Your task to perform on an android device: check battery use Image 0: 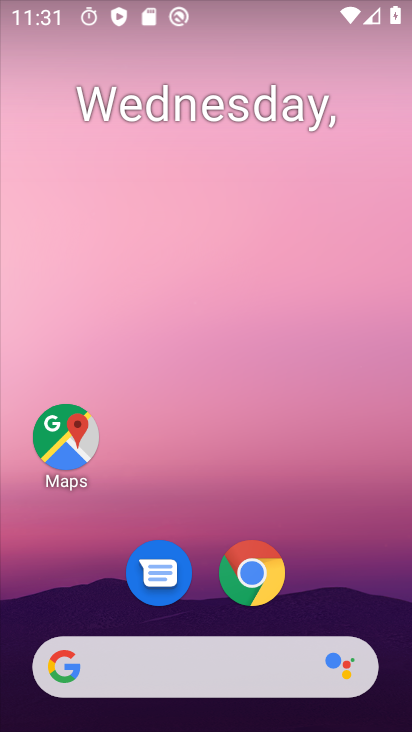
Step 0: drag from (373, 594) to (352, 277)
Your task to perform on an android device: check battery use Image 1: 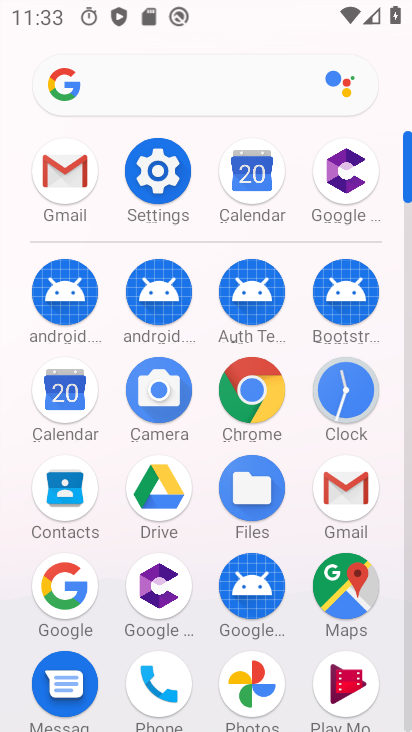
Step 1: click (158, 167)
Your task to perform on an android device: check battery use Image 2: 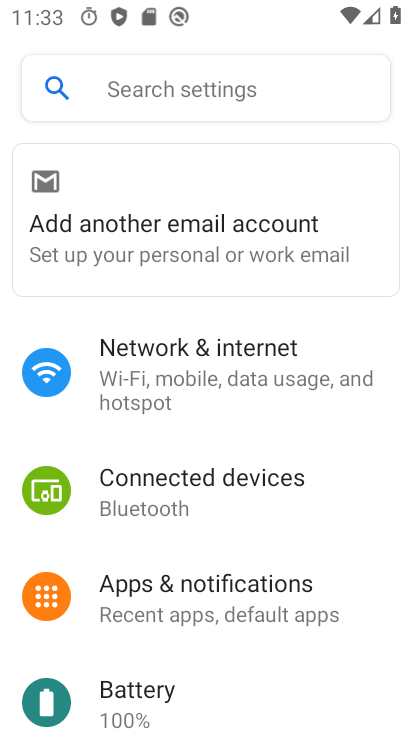
Step 2: click (147, 693)
Your task to perform on an android device: check battery use Image 3: 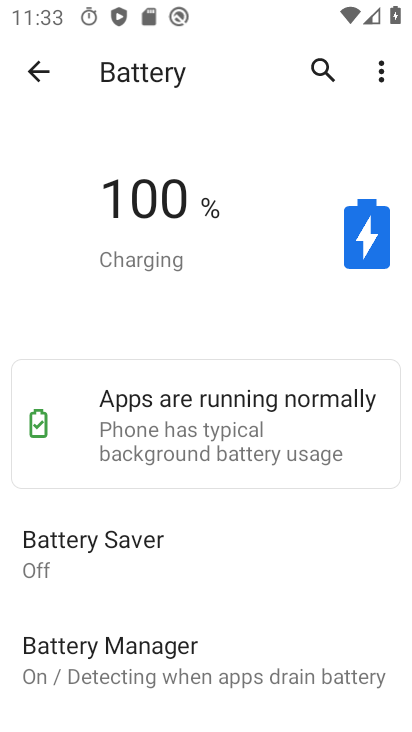
Step 3: click (381, 66)
Your task to perform on an android device: check battery use Image 4: 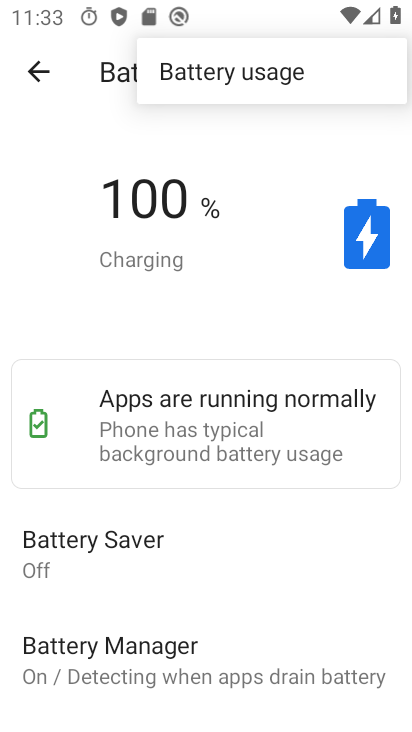
Step 4: click (289, 80)
Your task to perform on an android device: check battery use Image 5: 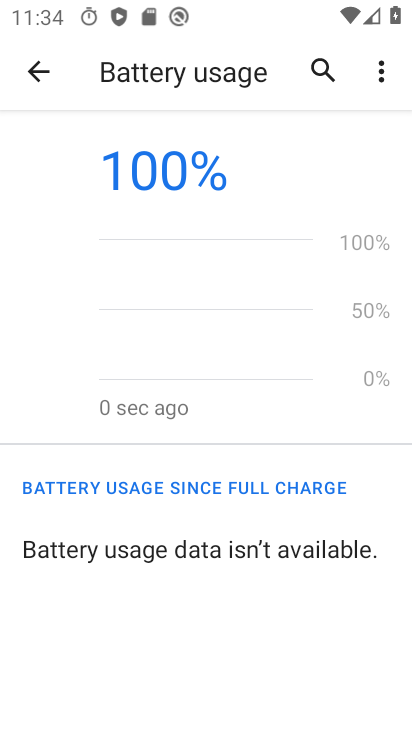
Step 5: task complete